Your task to perform on an android device: change the clock display to show seconds Image 0: 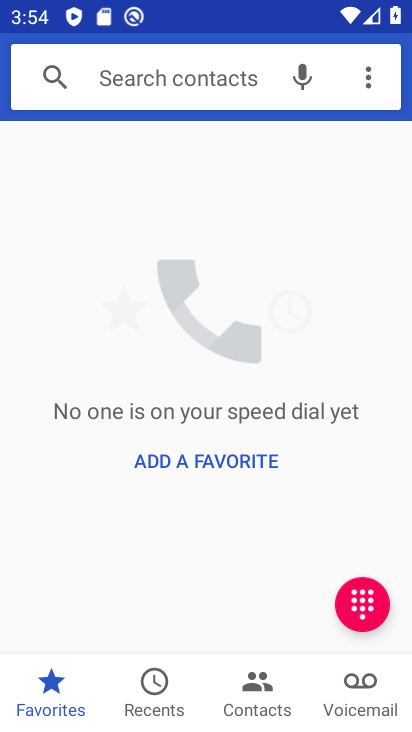
Step 0: press home button
Your task to perform on an android device: change the clock display to show seconds Image 1: 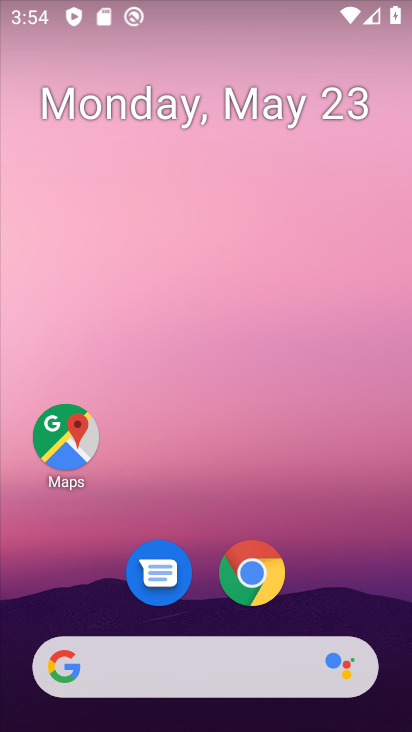
Step 1: drag from (194, 713) to (172, 114)
Your task to perform on an android device: change the clock display to show seconds Image 2: 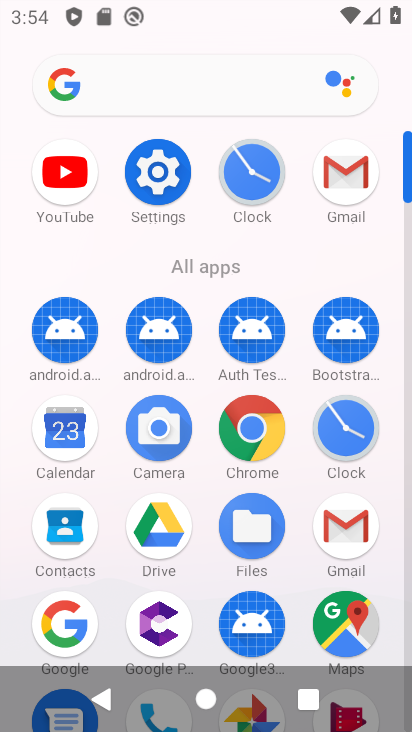
Step 2: click (341, 419)
Your task to perform on an android device: change the clock display to show seconds Image 3: 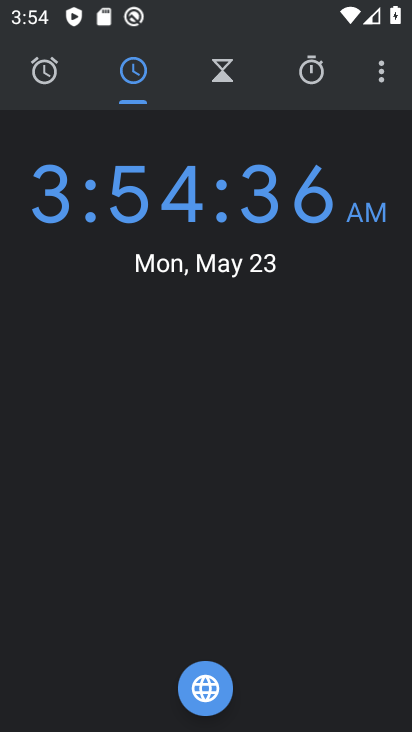
Step 3: click (383, 78)
Your task to perform on an android device: change the clock display to show seconds Image 4: 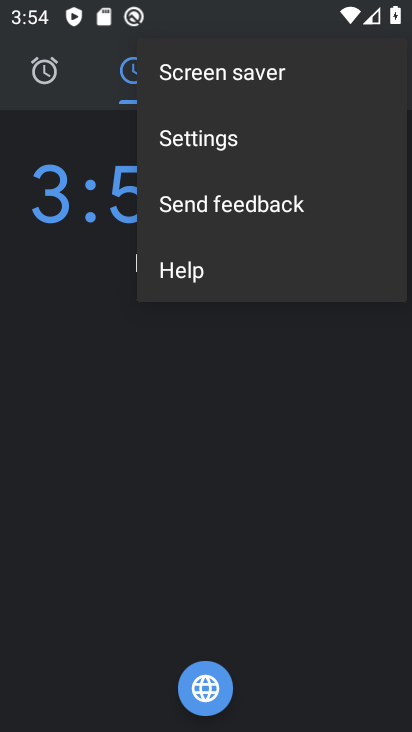
Step 4: click (191, 140)
Your task to perform on an android device: change the clock display to show seconds Image 5: 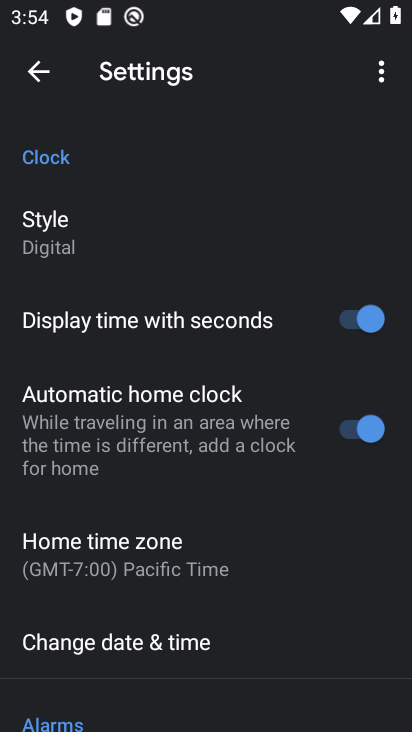
Step 5: task complete